Your task to perform on an android device: turn on improve location accuracy Image 0: 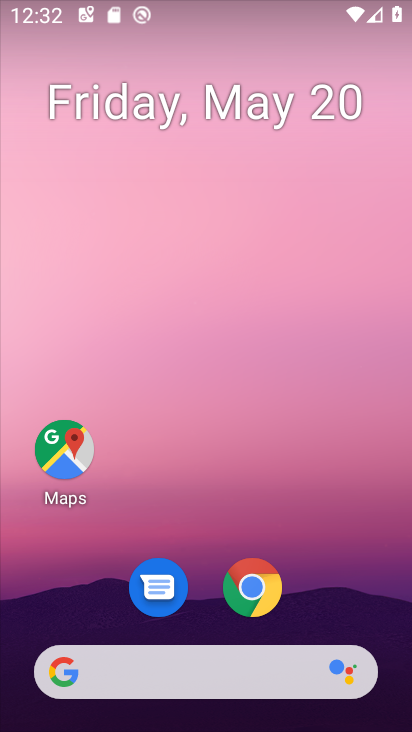
Step 0: drag from (338, 602) to (337, 153)
Your task to perform on an android device: turn on improve location accuracy Image 1: 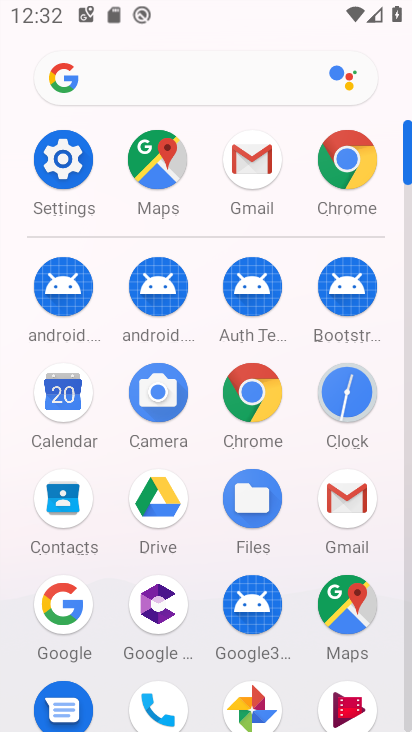
Step 1: click (73, 174)
Your task to perform on an android device: turn on improve location accuracy Image 2: 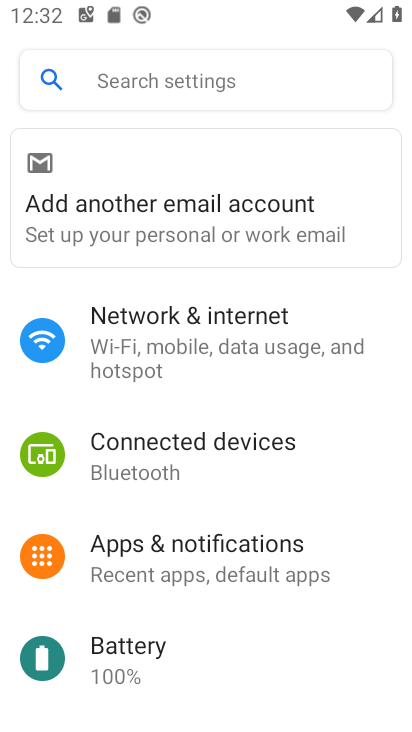
Step 2: drag from (363, 629) to (362, 494)
Your task to perform on an android device: turn on improve location accuracy Image 3: 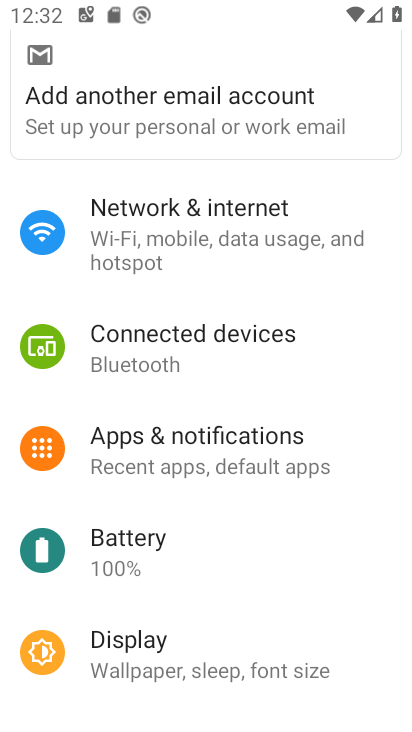
Step 3: drag from (364, 635) to (367, 520)
Your task to perform on an android device: turn on improve location accuracy Image 4: 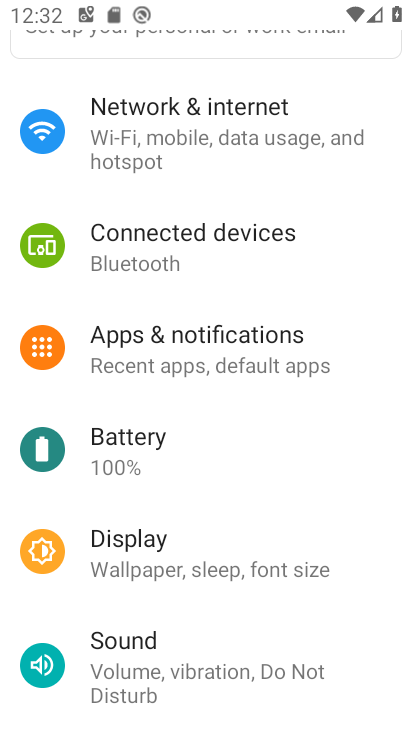
Step 4: drag from (367, 634) to (367, 519)
Your task to perform on an android device: turn on improve location accuracy Image 5: 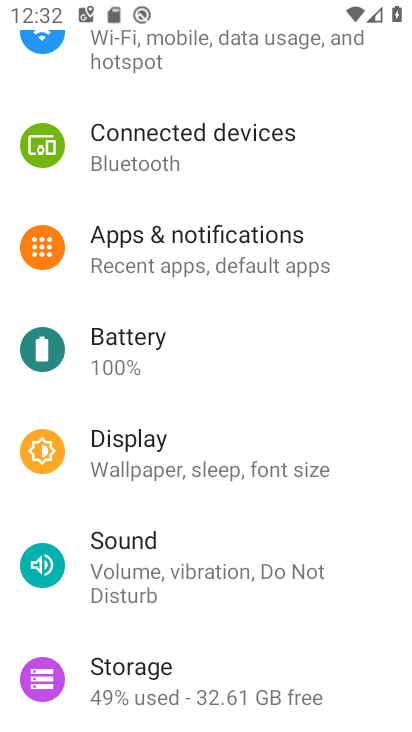
Step 5: drag from (372, 620) to (365, 513)
Your task to perform on an android device: turn on improve location accuracy Image 6: 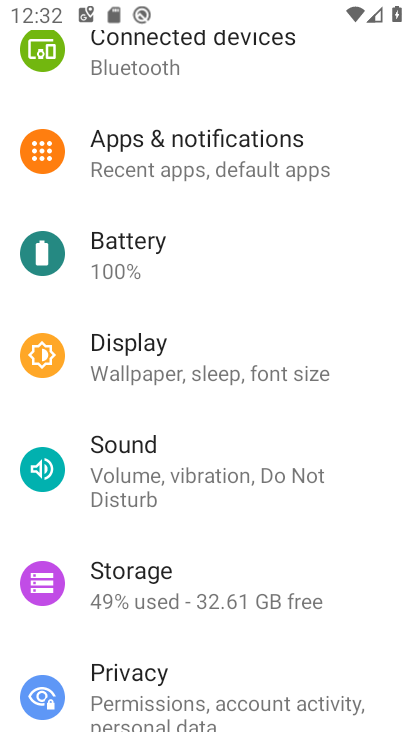
Step 6: drag from (349, 634) to (345, 521)
Your task to perform on an android device: turn on improve location accuracy Image 7: 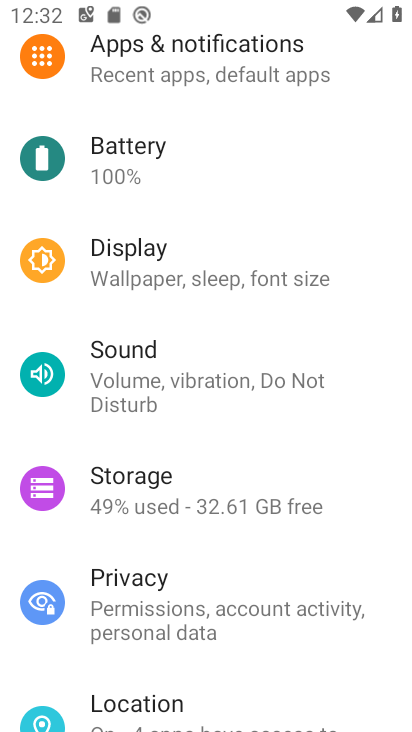
Step 7: drag from (342, 670) to (338, 551)
Your task to perform on an android device: turn on improve location accuracy Image 8: 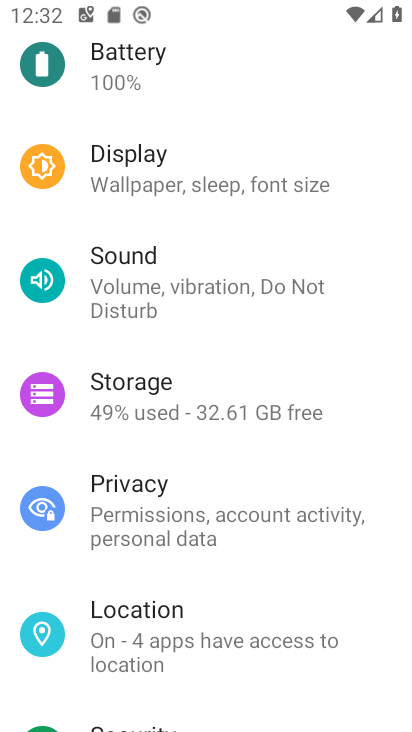
Step 8: drag from (356, 660) to (349, 560)
Your task to perform on an android device: turn on improve location accuracy Image 9: 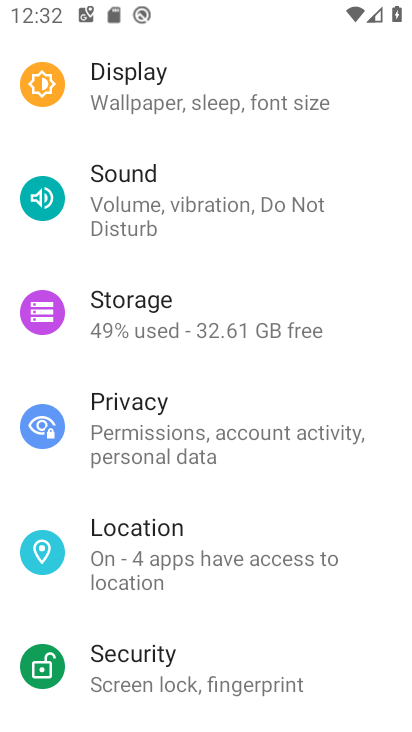
Step 9: drag from (356, 659) to (356, 551)
Your task to perform on an android device: turn on improve location accuracy Image 10: 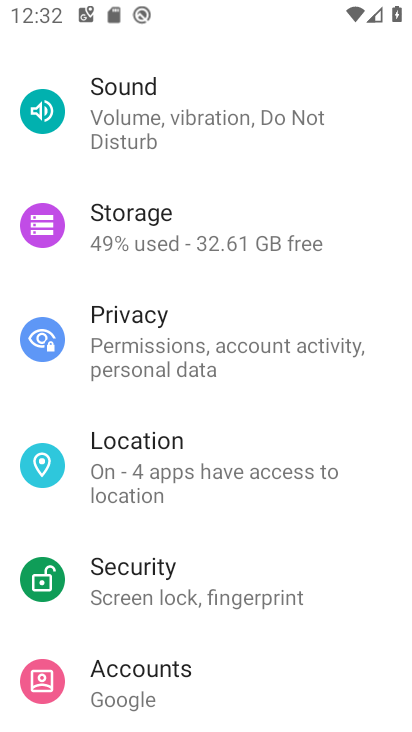
Step 10: drag from (359, 670) to (352, 578)
Your task to perform on an android device: turn on improve location accuracy Image 11: 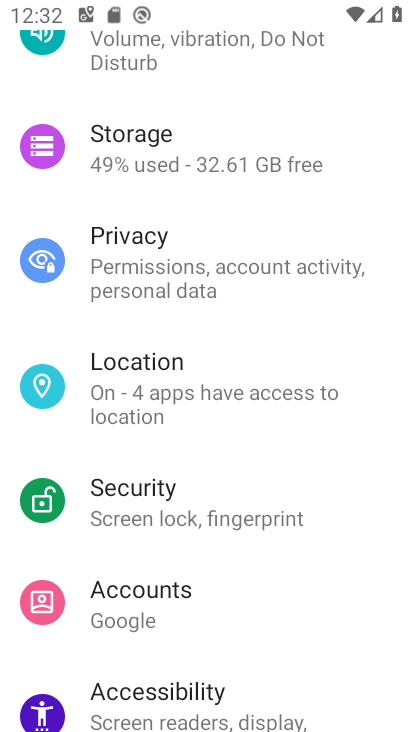
Step 11: drag from (350, 645) to (345, 575)
Your task to perform on an android device: turn on improve location accuracy Image 12: 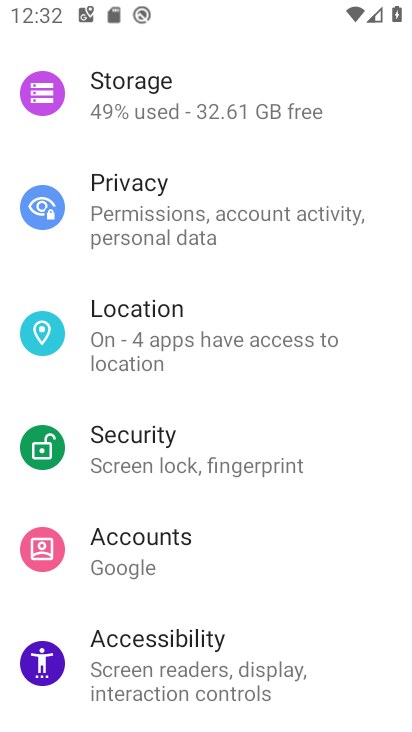
Step 12: drag from (320, 652) to (321, 574)
Your task to perform on an android device: turn on improve location accuracy Image 13: 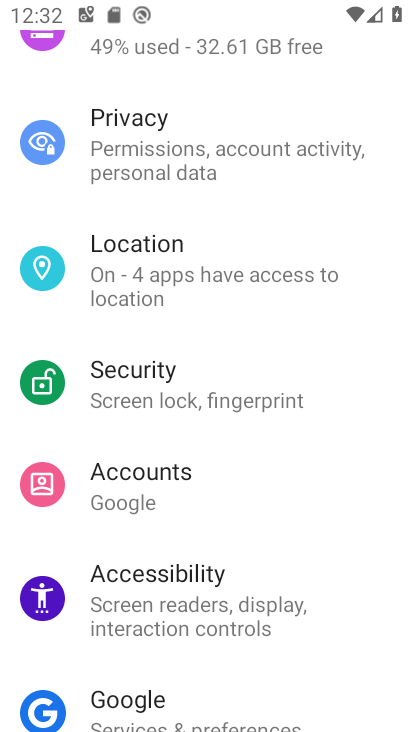
Step 13: click (279, 276)
Your task to perform on an android device: turn on improve location accuracy Image 14: 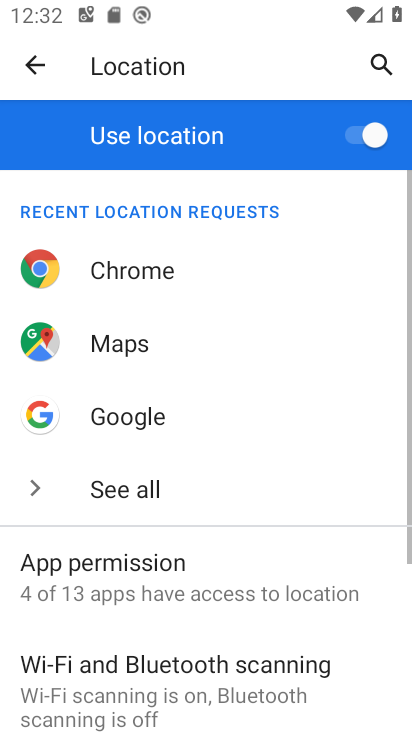
Step 14: drag from (306, 566) to (310, 439)
Your task to perform on an android device: turn on improve location accuracy Image 15: 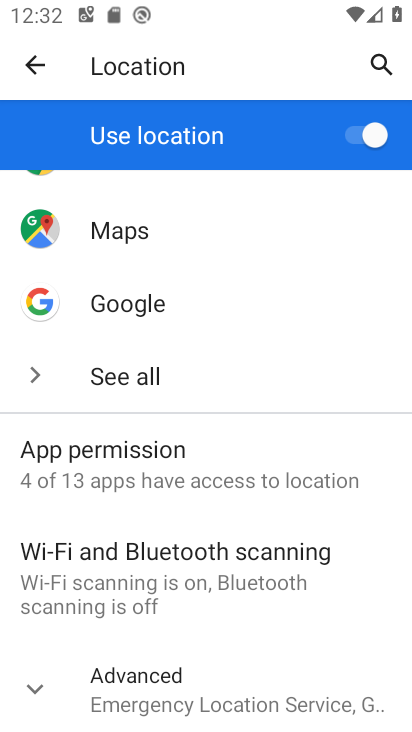
Step 15: drag from (315, 623) to (308, 456)
Your task to perform on an android device: turn on improve location accuracy Image 16: 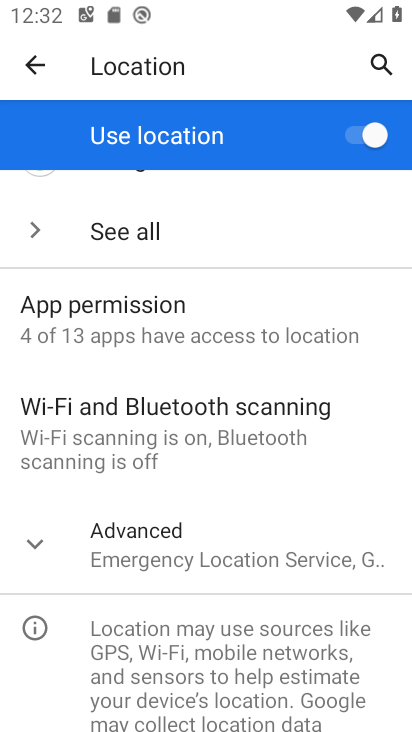
Step 16: click (279, 566)
Your task to perform on an android device: turn on improve location accuracy Image 17: 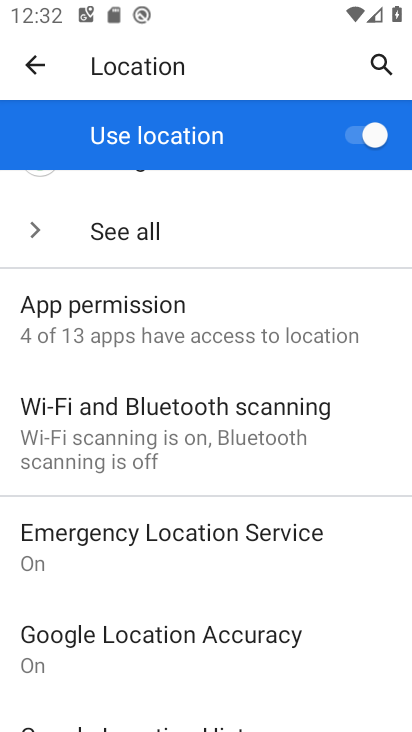
Step 17: click (243, 636)
Your task to perform on an android device: turn on improve location accuracy Image 18: 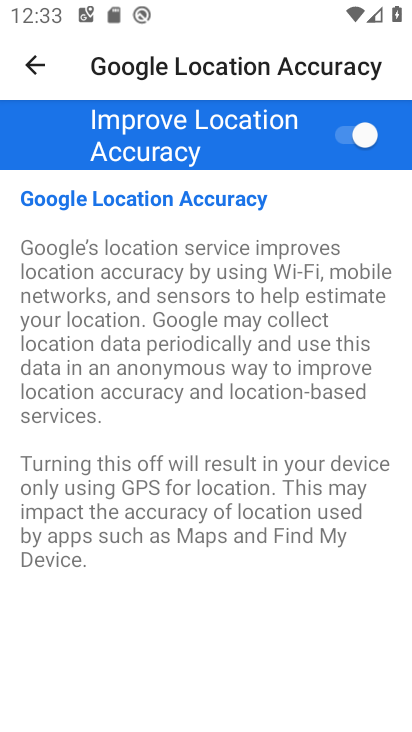
Step 18: task complete